Your task to perform on an android device: Open calendar and show me the first week of next month Image 0: 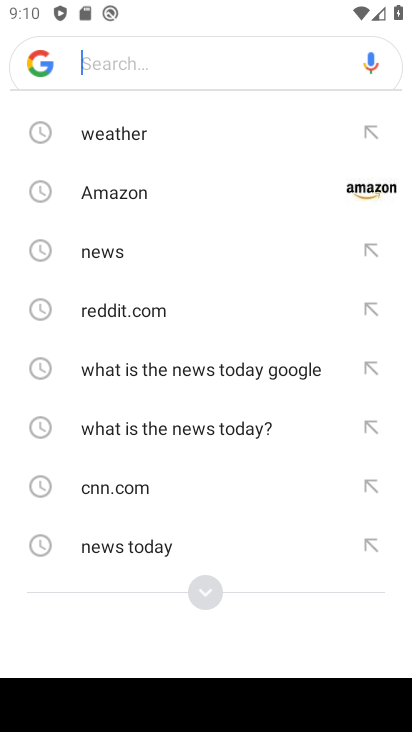
Step 0: press home button
Your task to perform on an android device: Open calendar and show me the first week of next month Image 1: 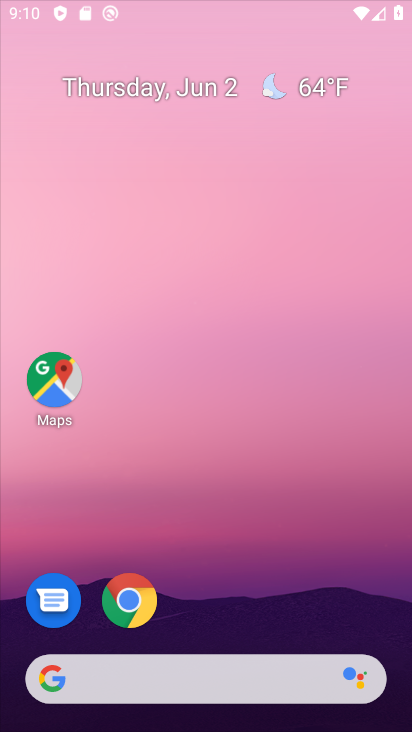
Step 1: drag from (252, 575) to (281, 9)
Your task to perform on an android device: Open calendar and show me the first week of next month Image 2: 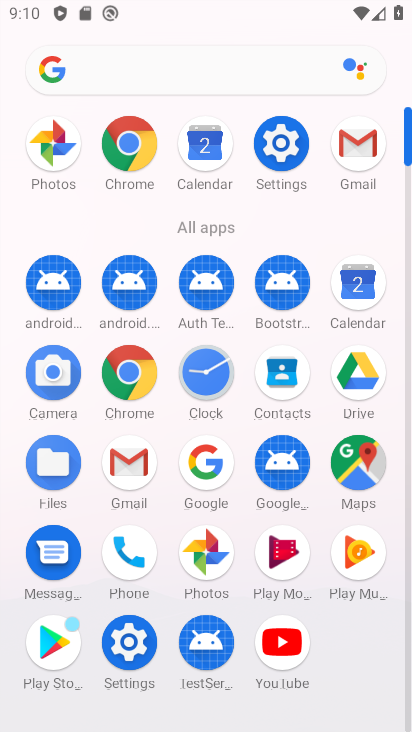
Step 2: click (359, 290)
Your task to perform on an android device: Open calendar and show me the first week of next month Image 3: 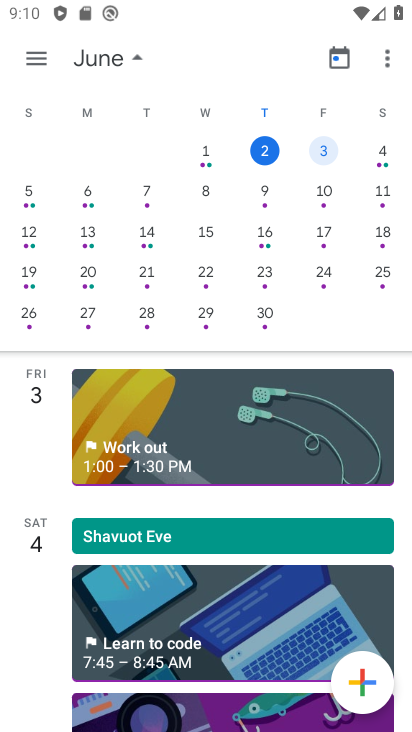
Step 3: click (378, 157)
Your task to perform on an android device: Open calendar and show me the first week of next month Image 4: 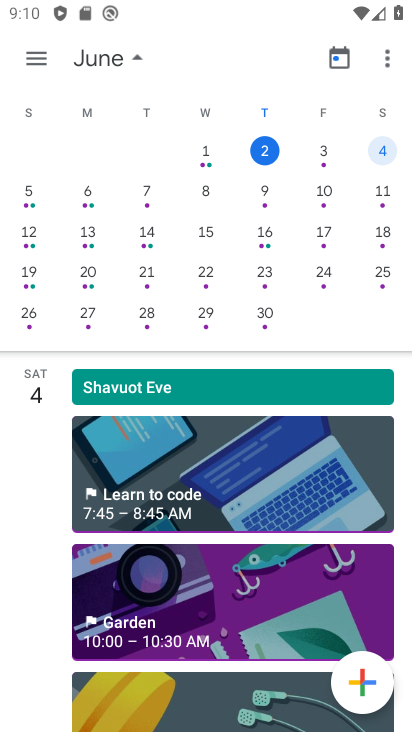
Step 4: task complete